Your task to perform on an android device: clear history in the chrome app Image 0: 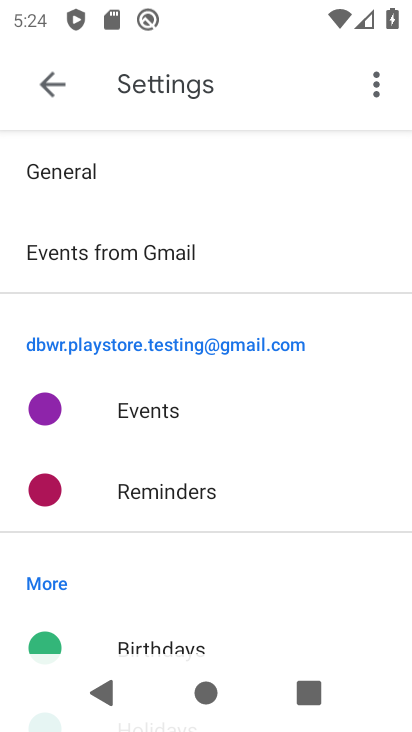
Step 0: press back button
Your task to perform on an android device: clear history in the chrome app Image 1: 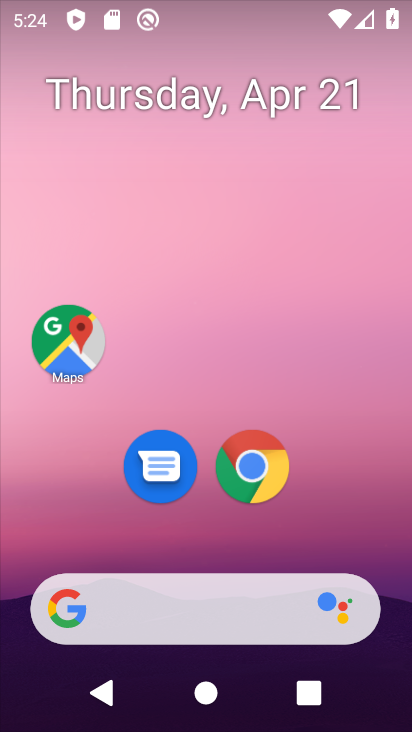
Step 1: click (255, 475)
Your task to perform on an android device: clear history in the chrome app Image 2: 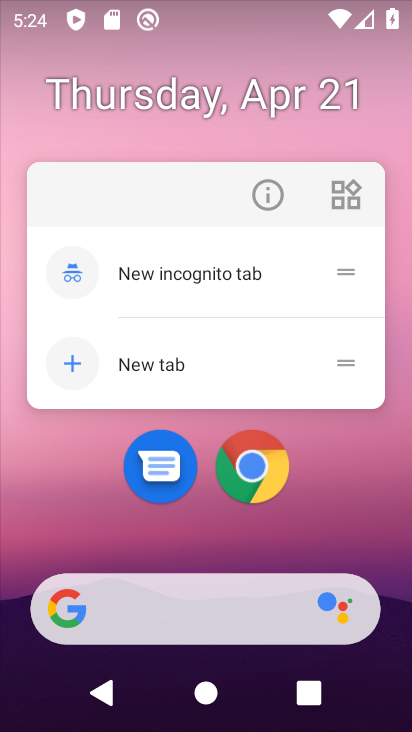
Step 2: click (255, 475)
Your task to perform on an android device: clear history in the chrome app Image 3: 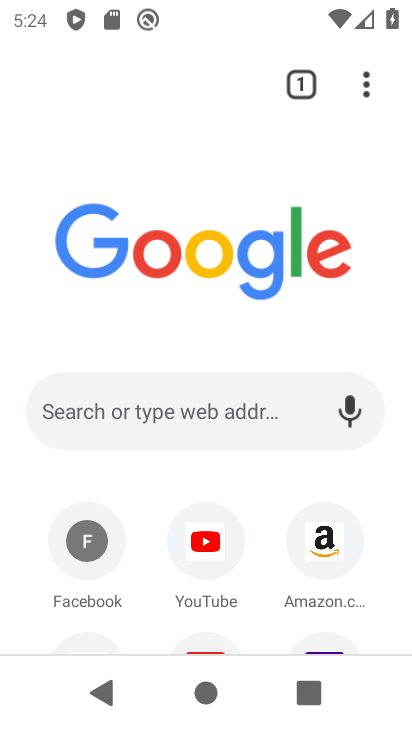
Step 3: click (365, 72)
Your task to perform on an android device: clear history in the chrome app Image 4: 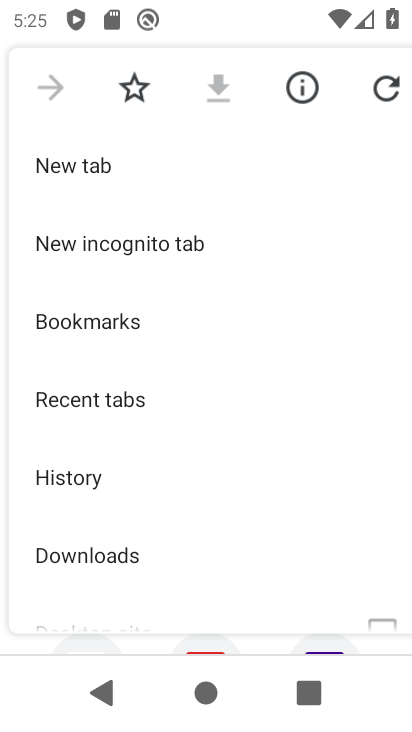
Step 4: click (63, 475)
Your task to perform on an android device: clear history in the chrome app Image 5: 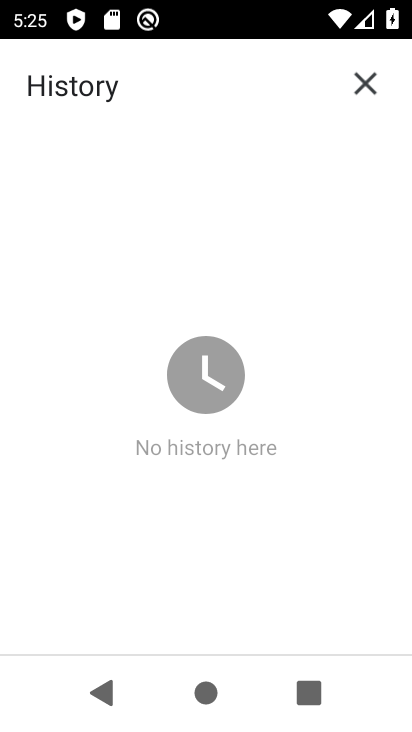
Step 5: task complete